Your task to perform on an android device: turn on wifi Image 0: 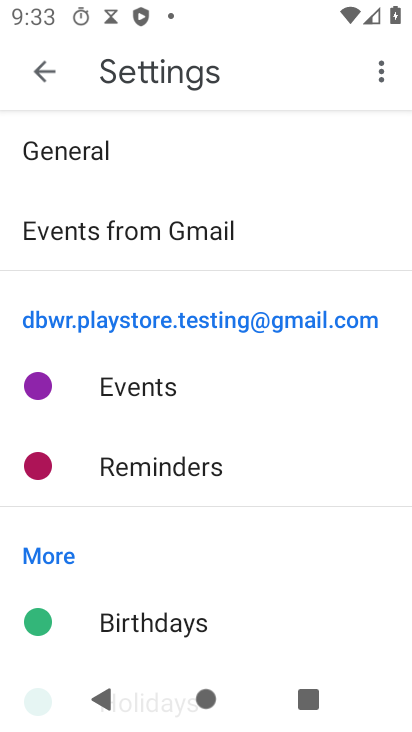
Step 0: press back button
Your task to perform on an android device: turn on wifi Image 1: 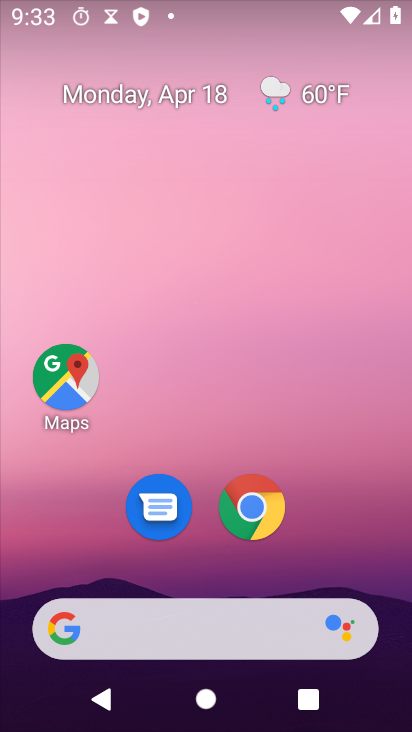
Step 1: drag from (349, 542) to (363, 119)
Your task to perform on an android device: turn on wifi Image 2: 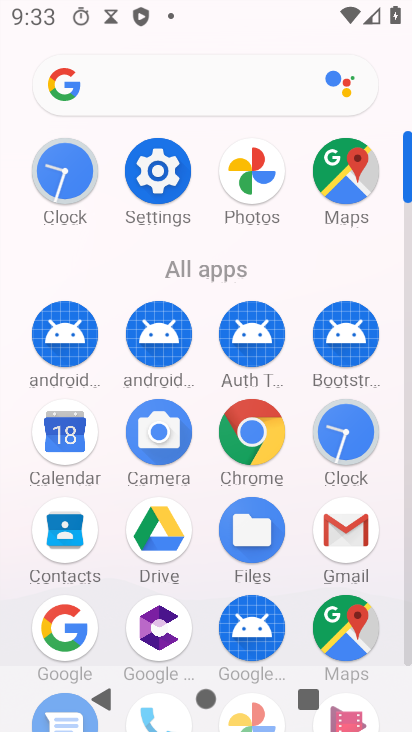
Step 2: click (167, 177)
Your task to perform on an android device: turn on wifi Image 3: 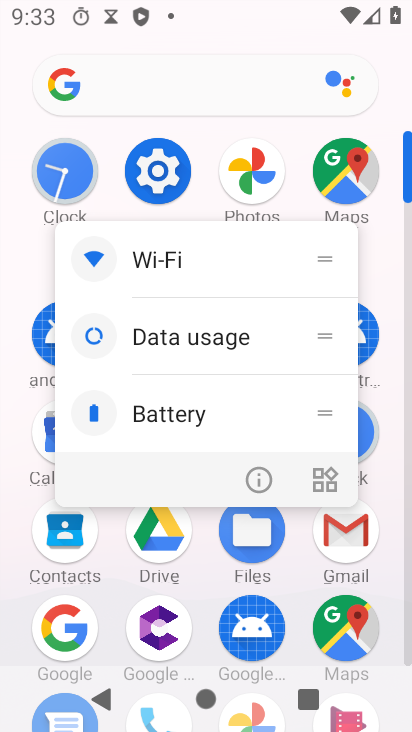
Step 3: click (167, 177)
Your task to perform on an android device: turn on wifi Image 4: 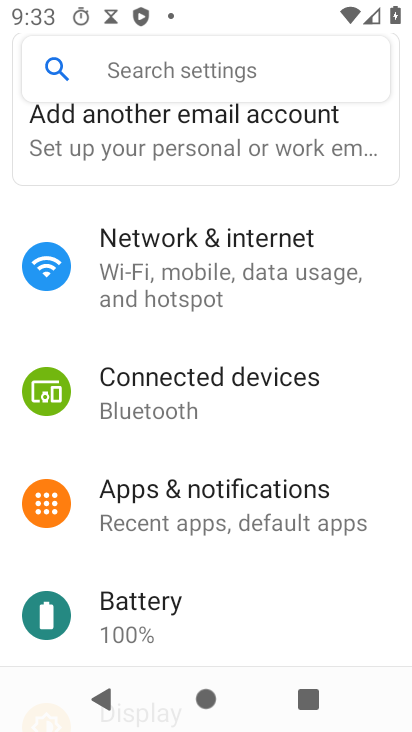
Step 4: click (180, 231)
Your task to perform on an android device: turn on wifi Image 5: 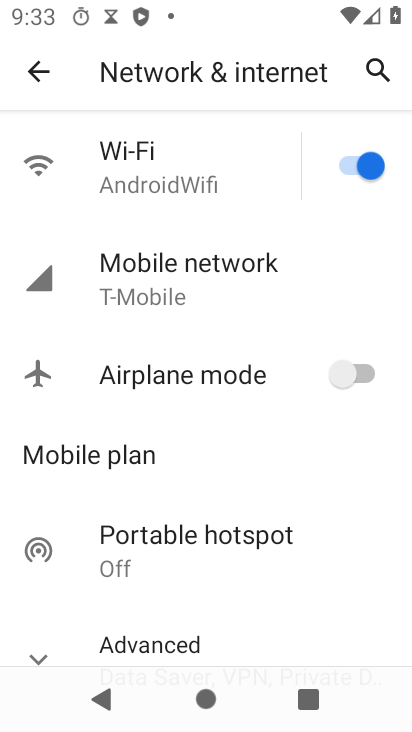
Step 5: task complete